Your task to perform on an android device: Open Google Image 0: 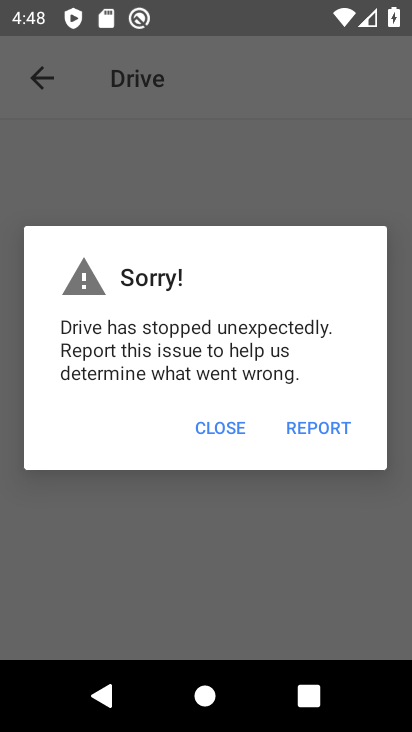
Step 0: press home button
Your task to perform on an android device: Open Google Image 1: 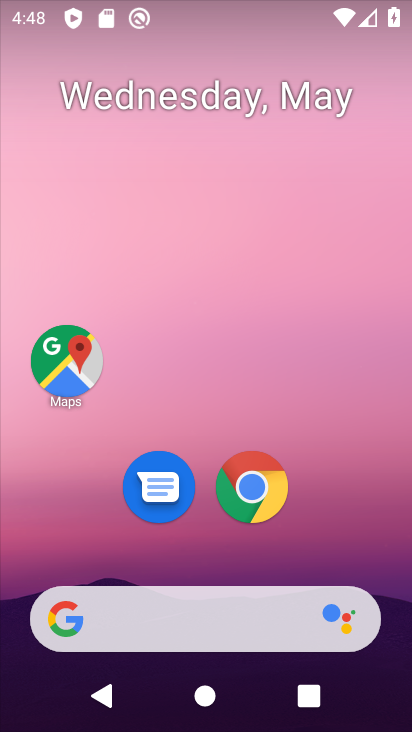
Step 1: click (256, 515)
Your task to perform on an android device: Open Google Image 2: 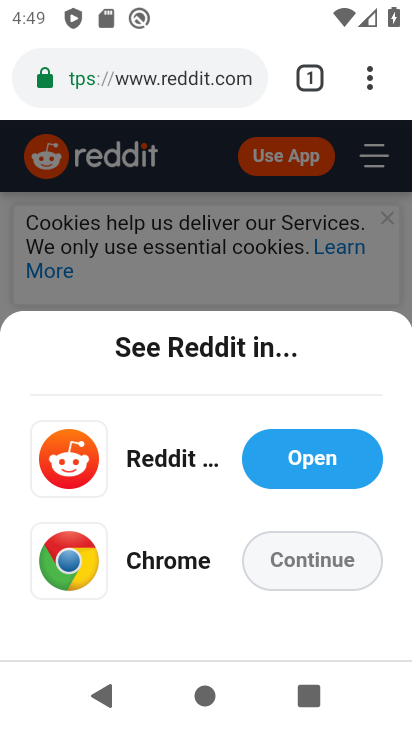
Step 2: click (216, 84)
Your task to perform on an android device: Open Google Image 3: 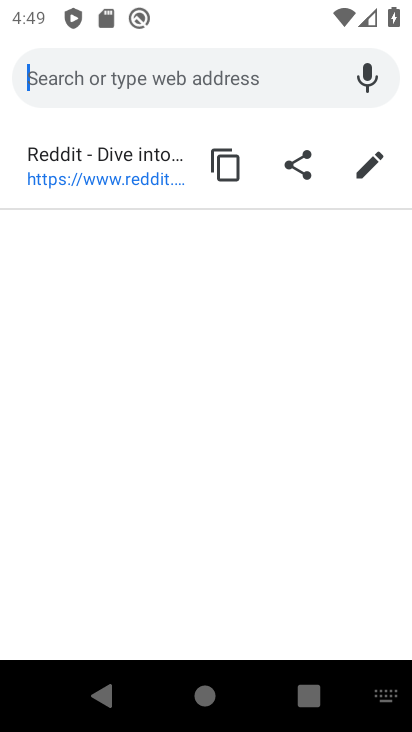
Step 3: type "google.cvom"
Your task to perform on an android device: Open Google Image 4: 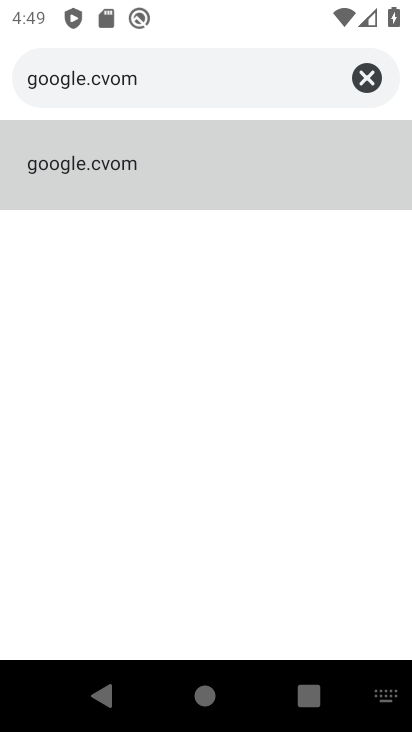
Step 4: click (110, 80)
Your task to perform on an android device: Open Google Image 5: 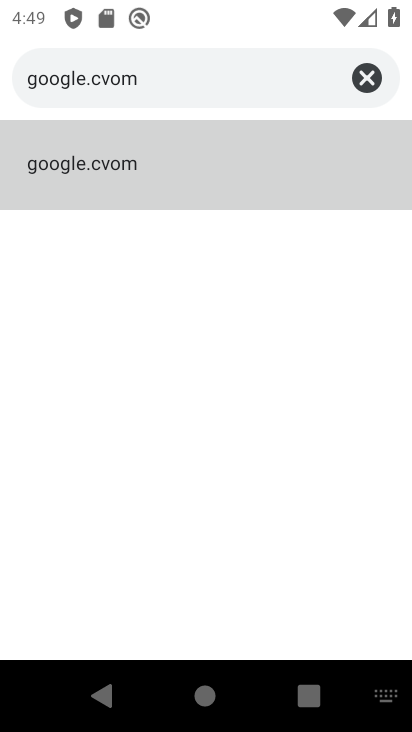
Step 5: click (110, 80)
Your task to perform on an android device: Open Google Image 6: 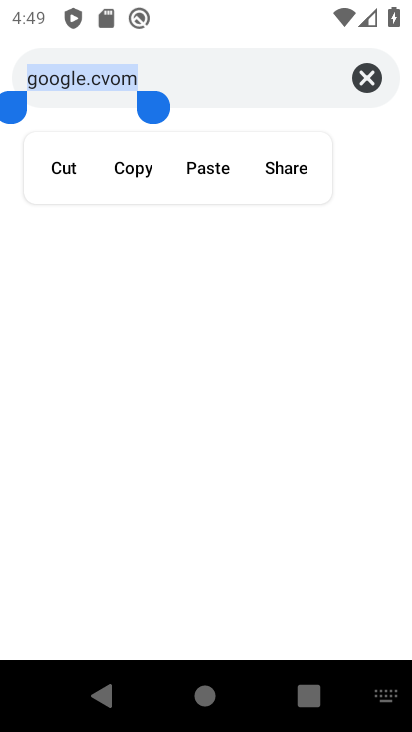
Step 6: task complete